Your task to perform on an android device: What is the recent news? Image 0: 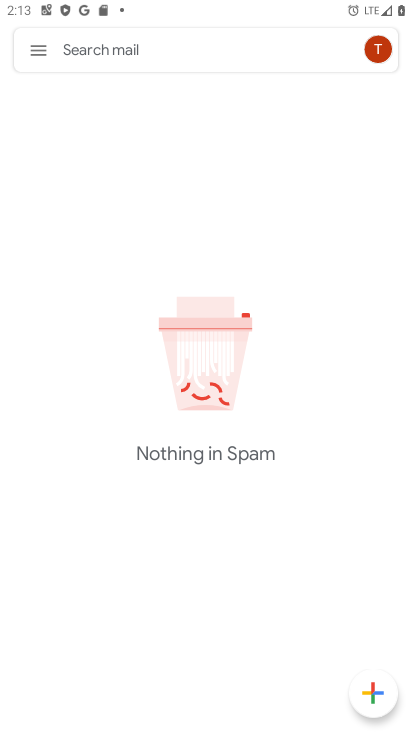
Step 0: press home button
Your task to perform on an android device: What is the recent news? Image 1: 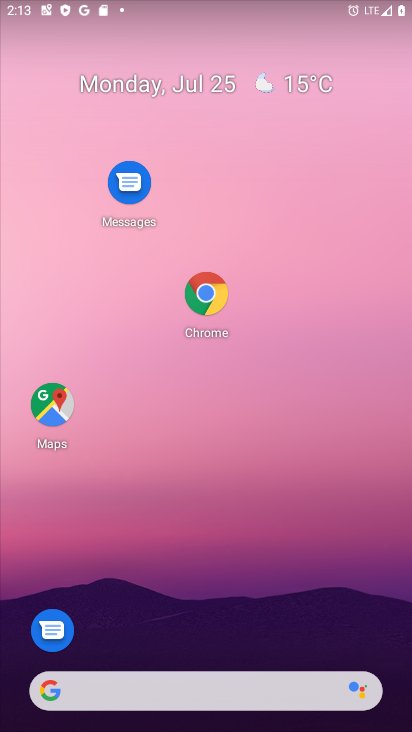
Step 1: drag from (177, 583) to (223, 453)
Your task to perform on an android device: What is the recent news? Image 2: 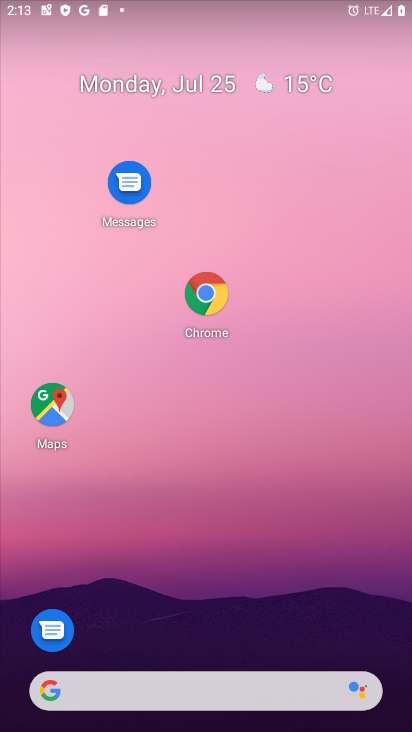
Step 2: drag from (183, 638) to (317, 168)
Your task to perform on an android device: What is the recent news? Image 3: 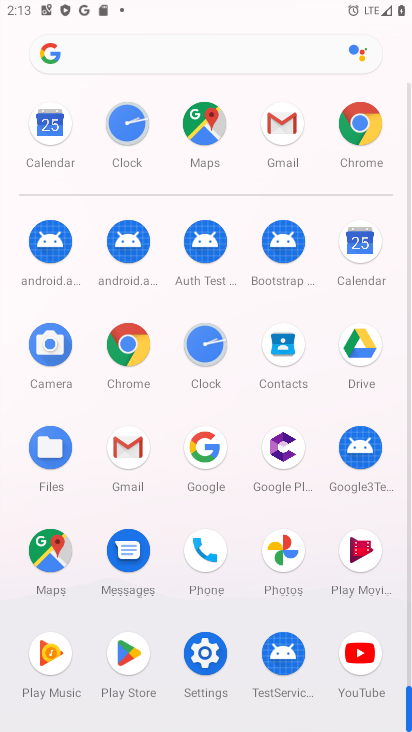
Step 3: click (361, 112)
Your task to perform on an android device: What is the recent news? Image 4: 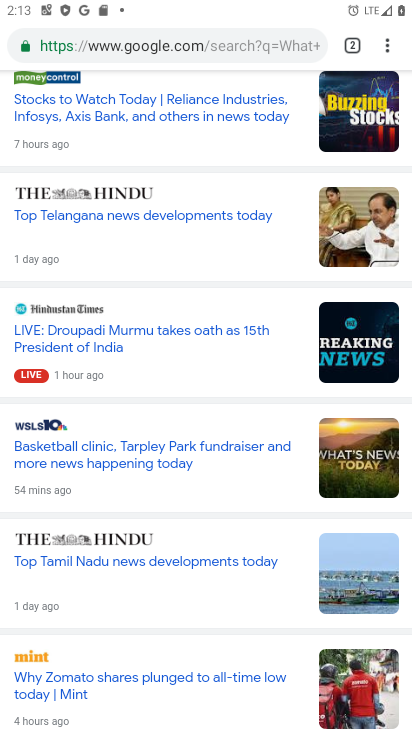
Step 4: click (265, 37)
Your task to perform on an android device: What is the recent news? Image 5: 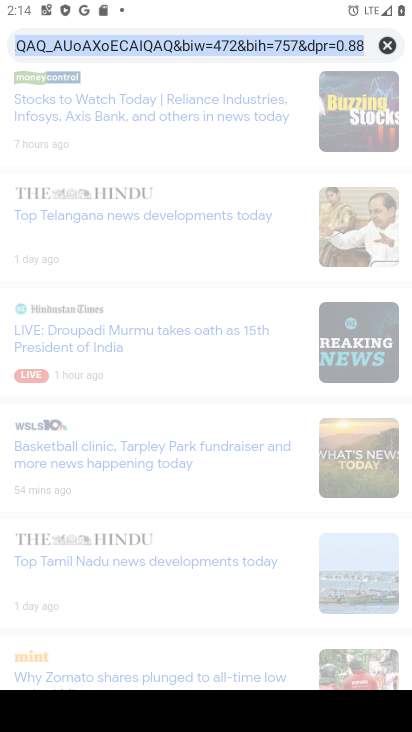
Step 5: type "What is the recent news?"
Your task to perform on an android device: What is the recent news? Image 6: 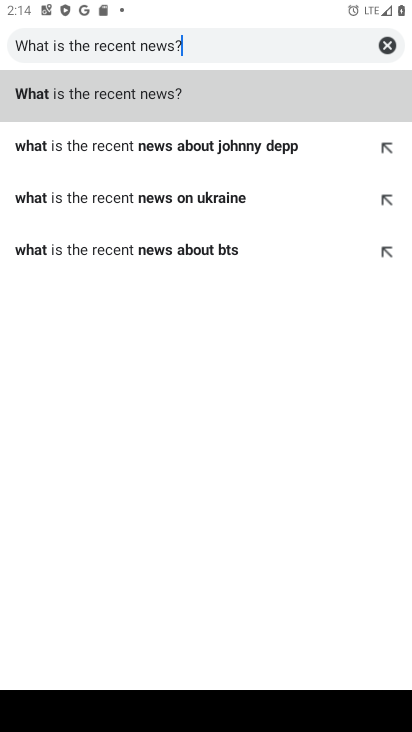
Step 6: type ""
Your task to perform on an android device: What is the recent news? Image 7: 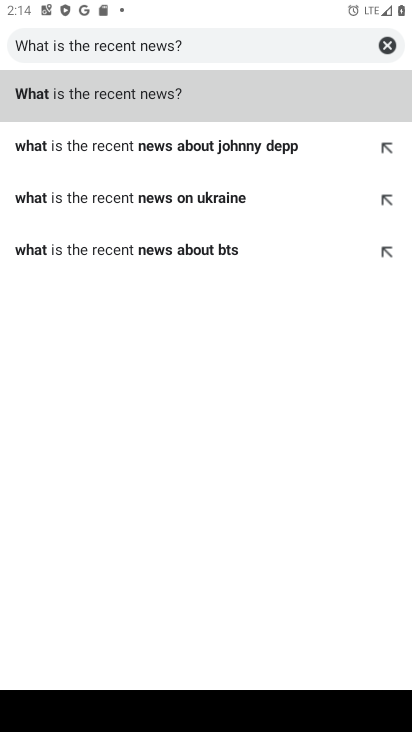
Step 7: click (158, 92)
Your task to perform on an android device: What is the recent news? Image 8: 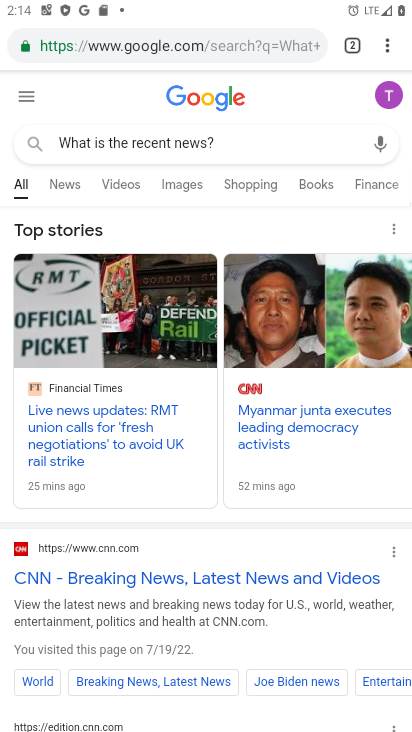
Step 8: task complete